Your task to perform on an android device: open a new tab in the chrome app Image 0: 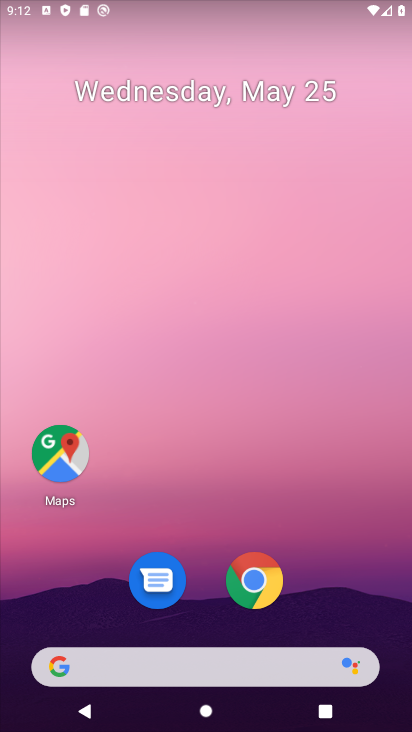
Step 0: press back button
Your task to perform on an android device: open a new tab in the chrome app Image 1: 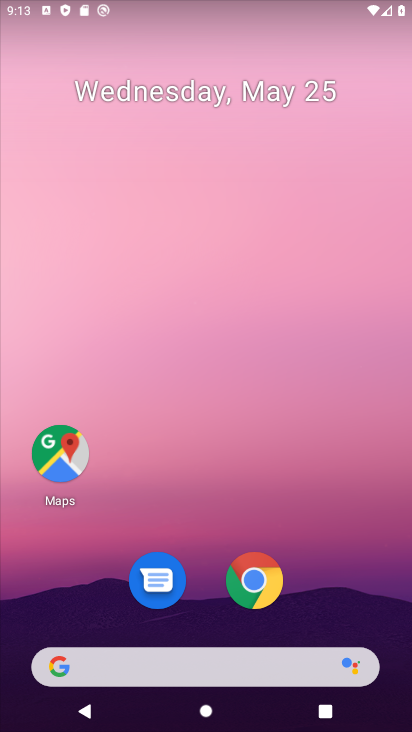
Step 1: click (261, 578)
Your task to perform on an android device: open a new tab in the chrome app Image 2: 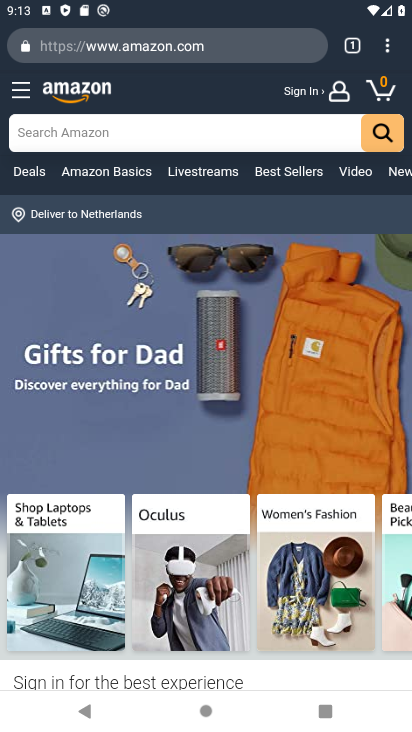
Step 2: click (341, 49)
Your task to perform on an android device: open a new tab in the chrome app Image 3: 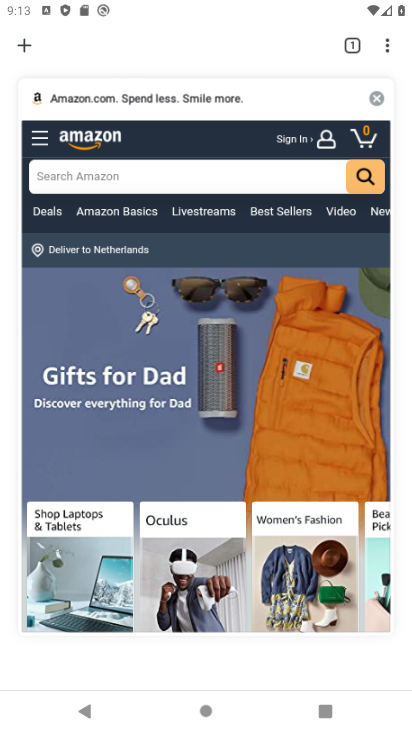
Step 3: click (15, 38)
Your task to perform on an android device: open a new tab in the chrome app Image 4: 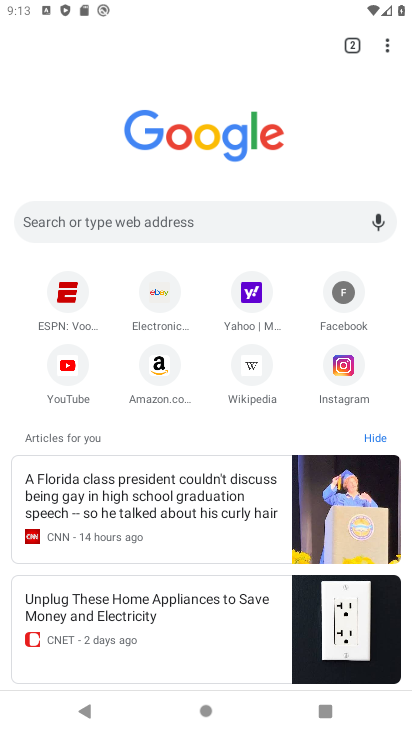
Step 4: task complete